Your task to perform on an android device: Open my contact list Image 0: 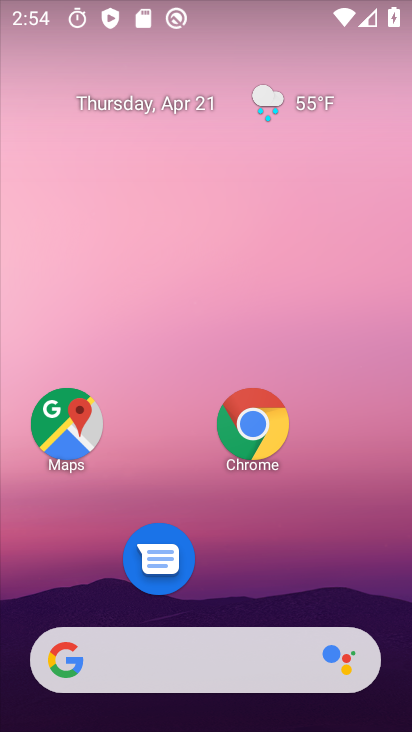
Step 0: drag from (259, 509) to (173, 159)
Your task to perform on an android device: Open my contact list Image 1: 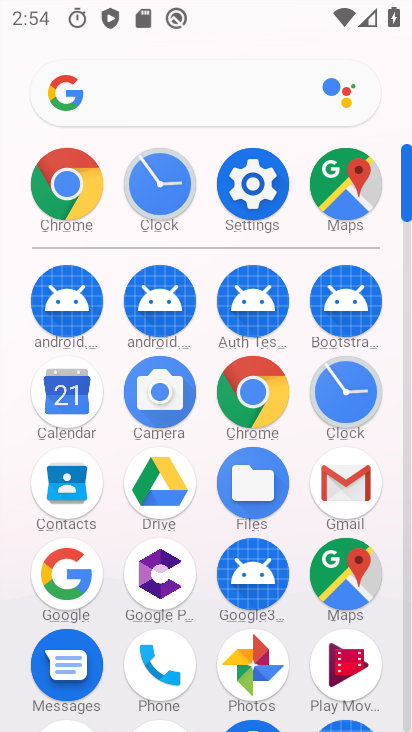
Step 1: click (73, 488)
Your task to perform on an android device: Open my contact list Image 2: 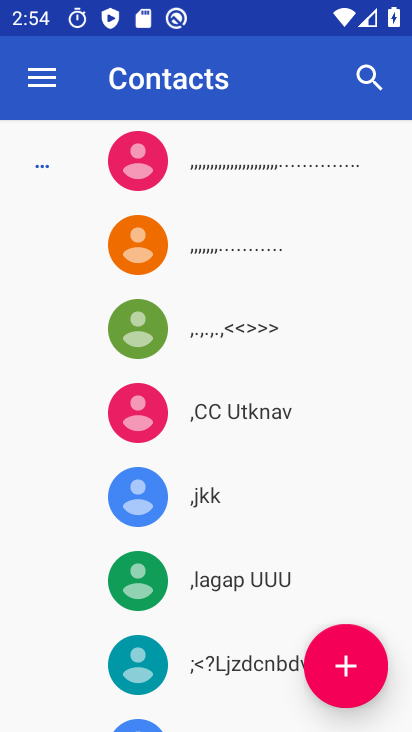
Step 2: click (350, 680)
Your task to perform on an android device: Open my contact list Image 3: 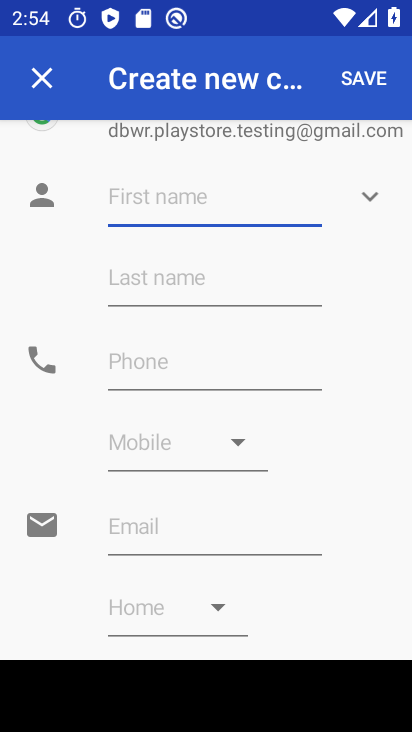
Step 3: type "hjfj"
Your task to perform on an android device: Open my contact list Image 4: 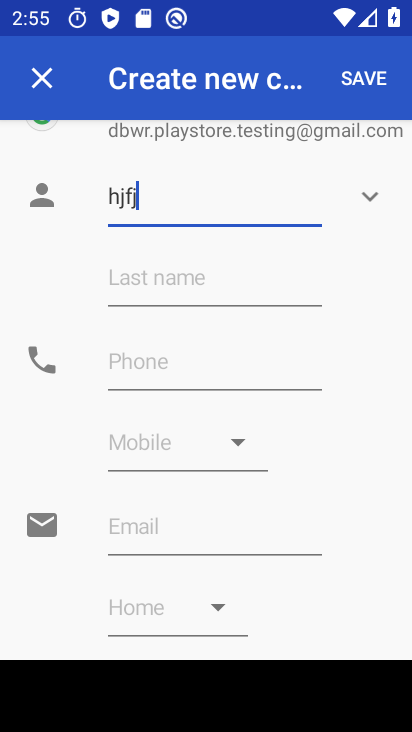
Step 4: click (363, 77)
Your task to perform on an android device: Open my contact list Image 5: 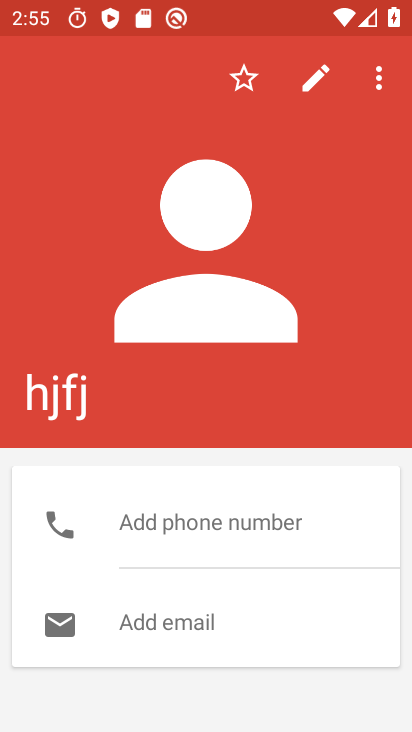
Step 5: task complete